Your task to perform on an android device: What's the weather today? Image 0: 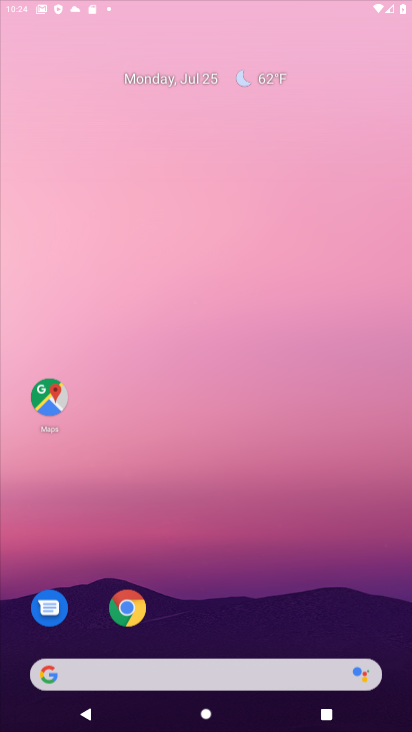
Step 0: click (272, 249)
Your task to perform on an android device: What's the weather today? Image 1: 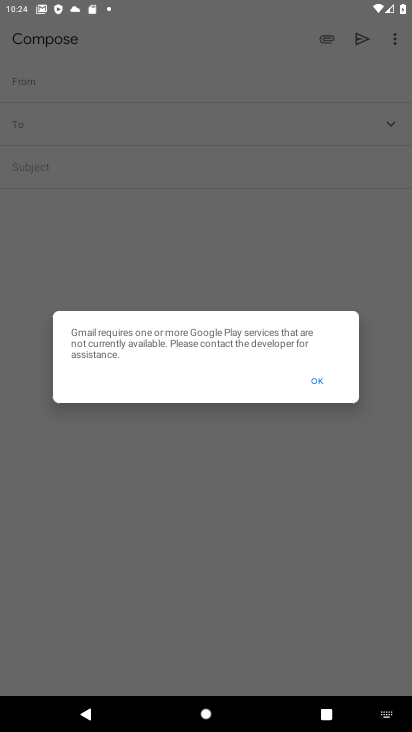
Step 1: press home button
Your task to perform on an android device: What's the weather today? Image 2: 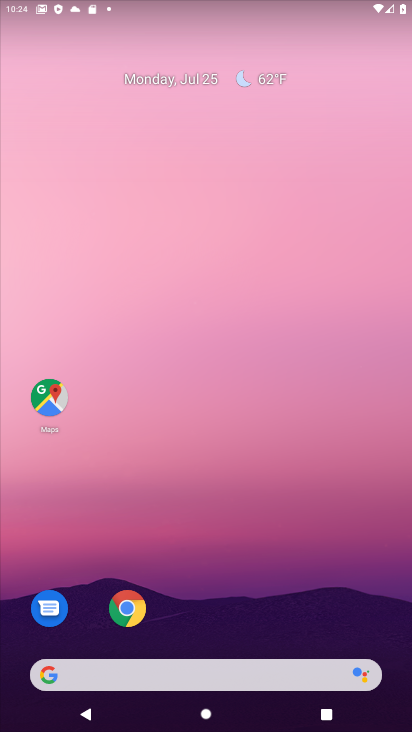
Step 2: click (191, 690)
Your task to perform on an android device: What's the weather today? Image 3: 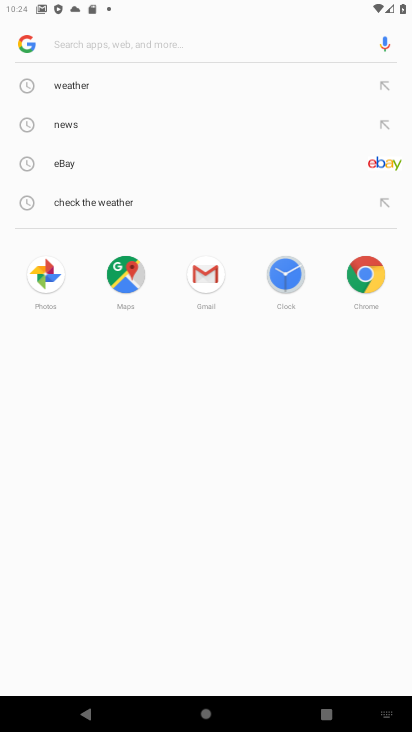
Step 3: click (86, 78)
Your task to perform on an android device: What's the weather today? Image 4: 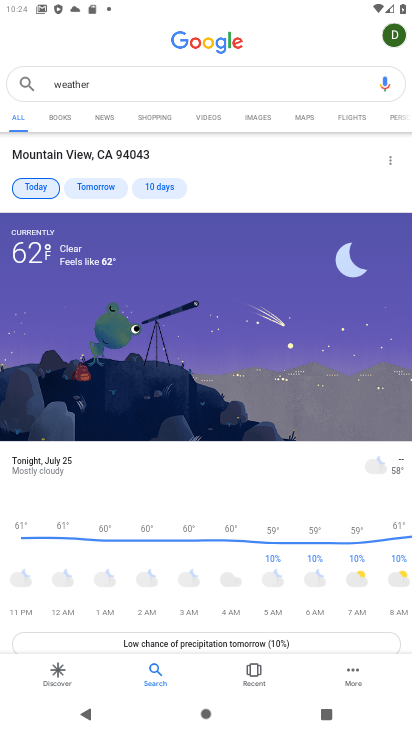
Step 4: task complete